Your task to perform on an android device: Find coffee shops on Maps Image 0: 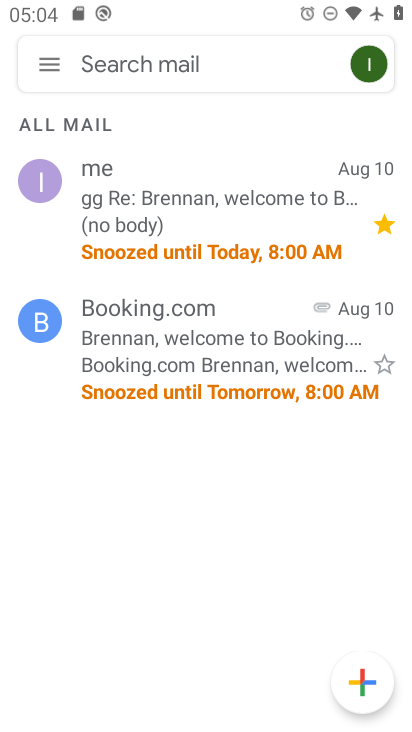
Step 0: press home button
Your task to perform on an android device: Find coffee shops on Maps Image 1: 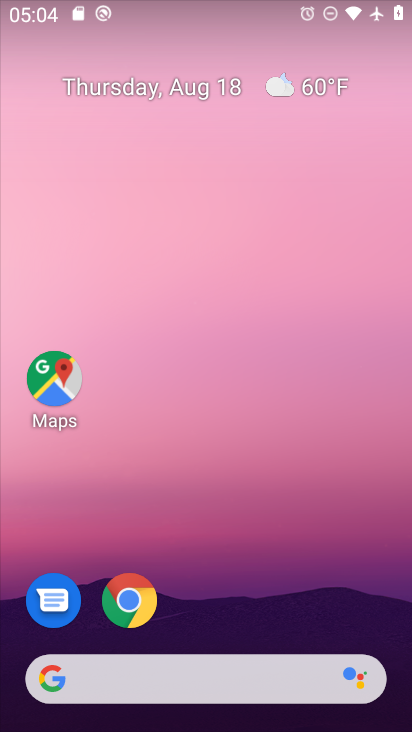
Step 1: click (52, 403)
Your task to perform on an android device: Find coffee shops on Maps Image 2: 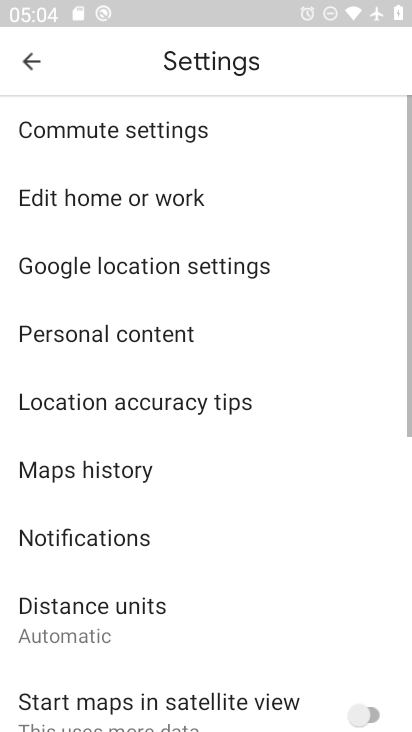
Step 2: press back button
Your task to perform on an android device: Find coffee shops on Maps Image 3: 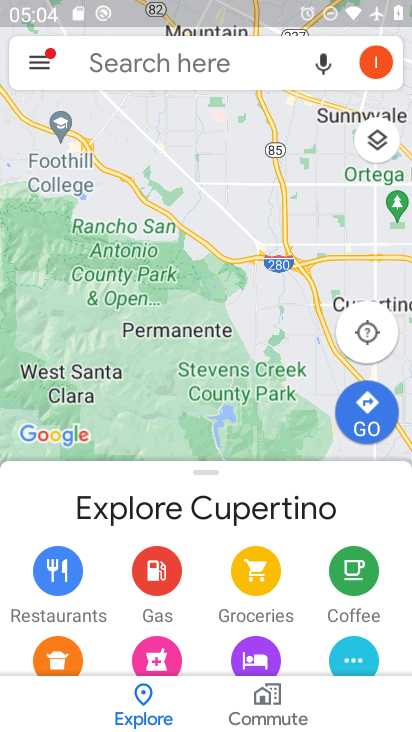
Step 3: click (150, 70)
Your task to perform on an android device: Find coffee shops on Maps Image 4: 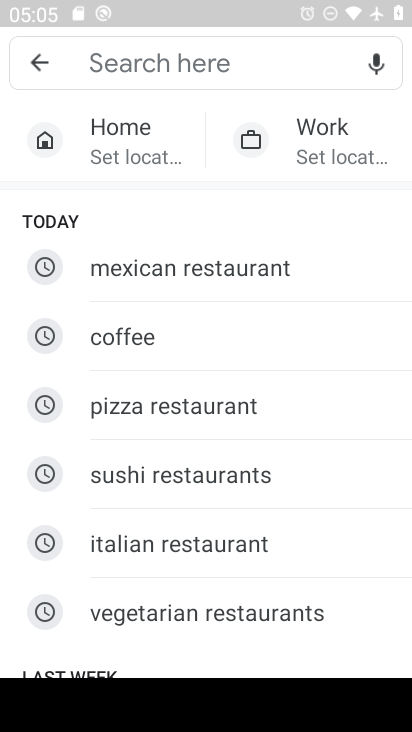
Step 4: type "coffee shops "
Your task to perform on an android device: Find coffee shops on Maps Image 5: 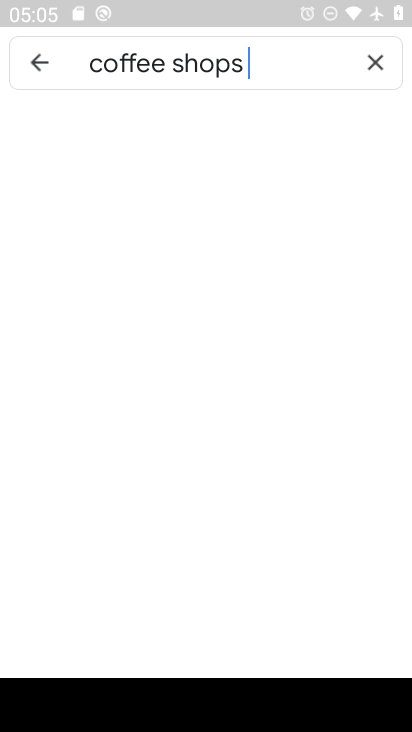
Step 5: press enter
Your task to perform on an android device: Find coffee shops on Maps Image 6: 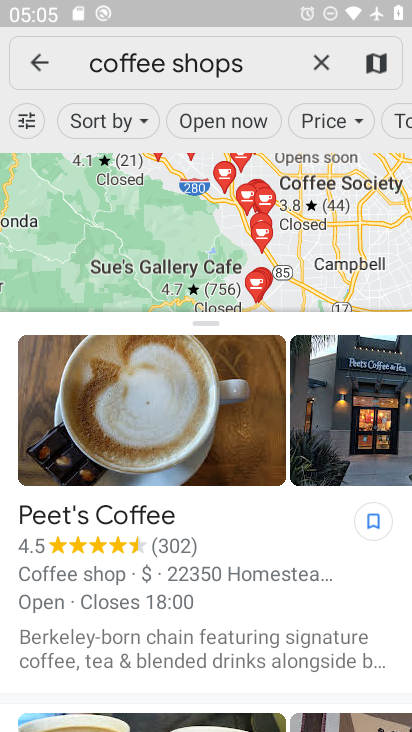
Step 6: task complete